Your task to perform on an android device: open a new tab in the chrome app Image 0: 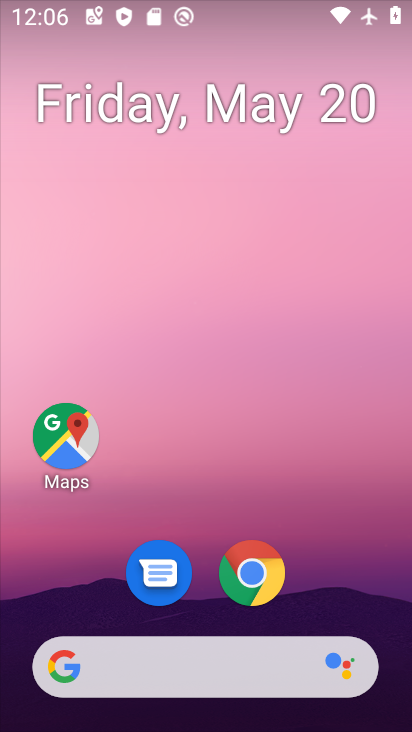
Step 0: click (260, 570)
Your task to perform on an android device: open a new tab in the chrome app Image 1: 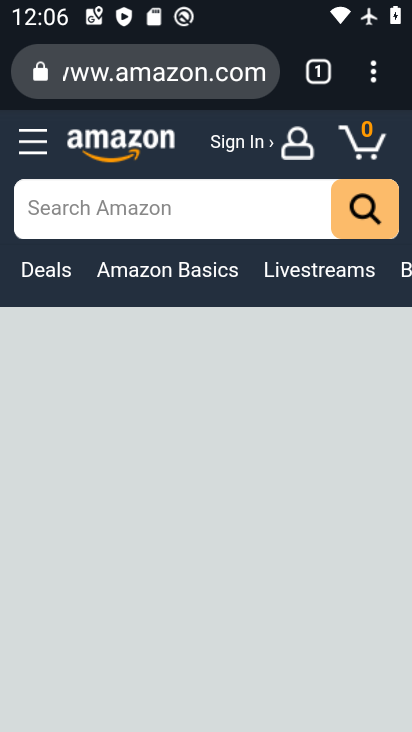
Step 1: click (321, 80)
Your task to perform on an android device: open a new tab in the chrome app Image 2: 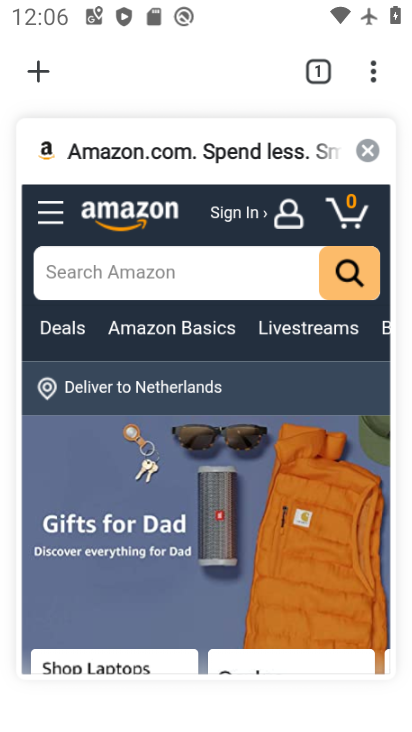
Step 2: click (41, 67)
Your task to perform on an android device: open a new tab in the chrome app Image 3: 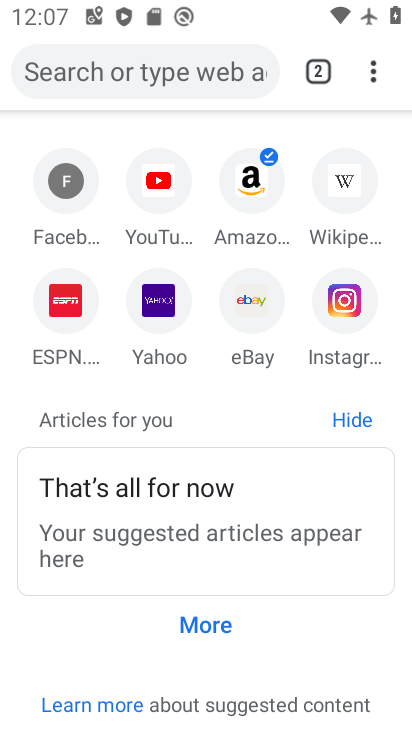
Step 3: task complete